Your task to perform on an android device: Open Reddit.com Image 0: 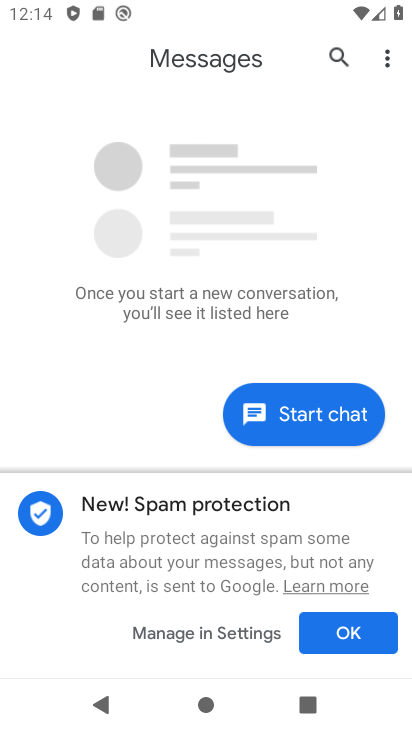
Step 0: press home button
Your task to perform on an android device: Open Reddit.com Image 1: 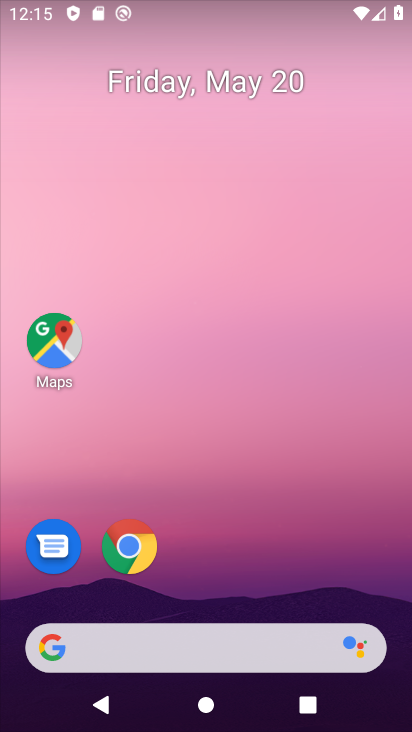
Step 1: type "reddit.com"
Your task to perform on an android device: Open Reddit.com Image 2: 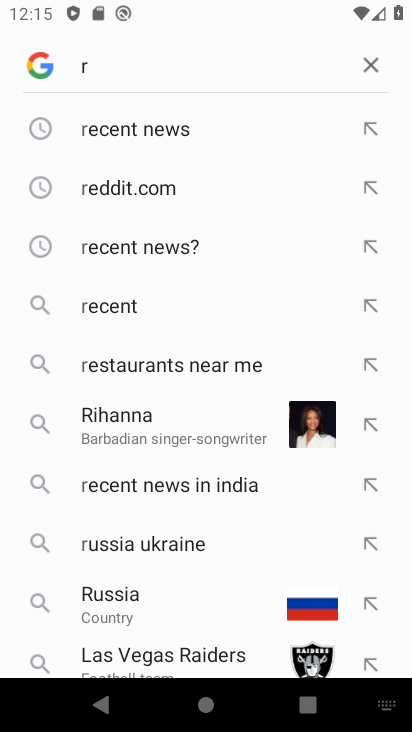
Step 2: click (161, 190)
Your task to perform on an android device: Open Reddit.com Image 3: 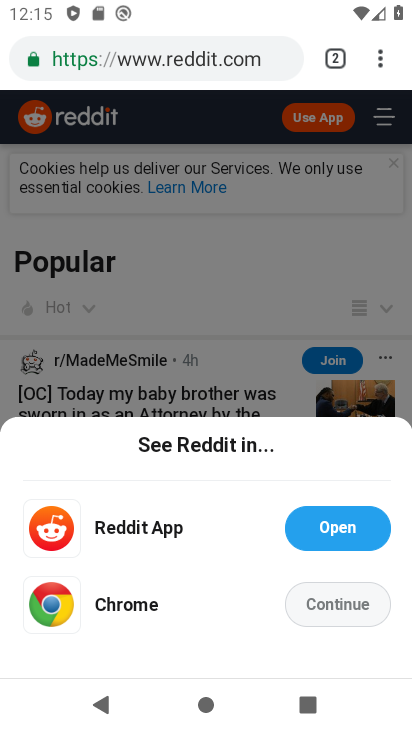
Step 3: task complete